Your task to perform on an android device: Find coffee shops on Maps Image 0: 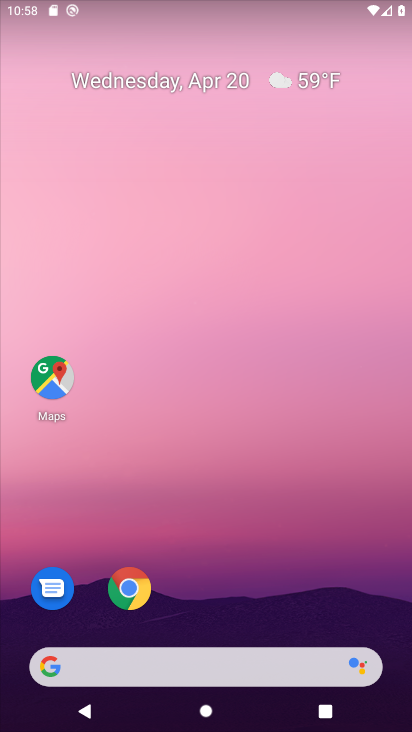
Step 0: click (47, 385)
Your task to perform on an android device: Find coffee shops on Maps Image 1: 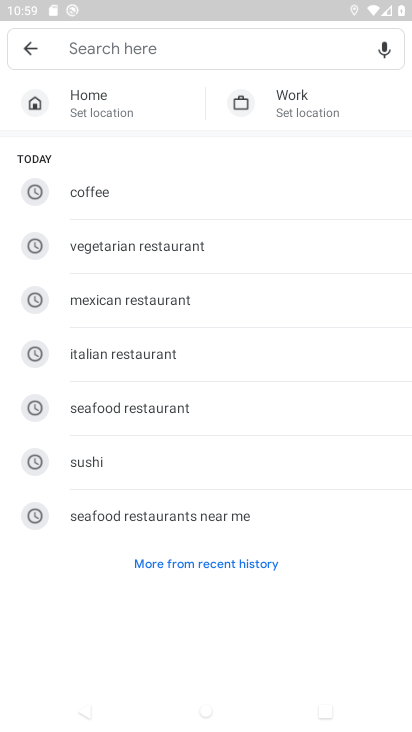
Step 1: click (76, 191)
Your task to perform on an android device: Find coffee shops on Maps Image 2: 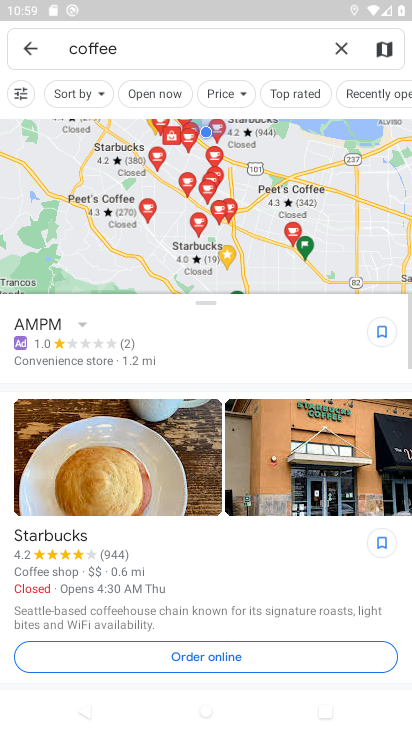
Step 2: task complete